Your task to perform on an android device: turn off smart reply in the gmail app Image 0: 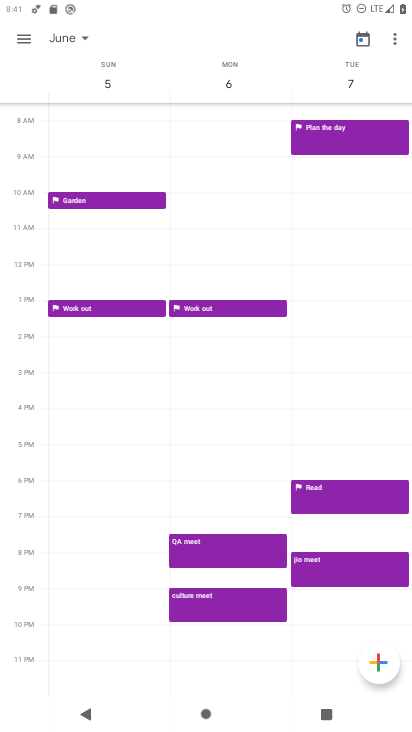
Step 0: press home button
Your task to perform on an android device: turn off smart reply in the gmail app Image 1: 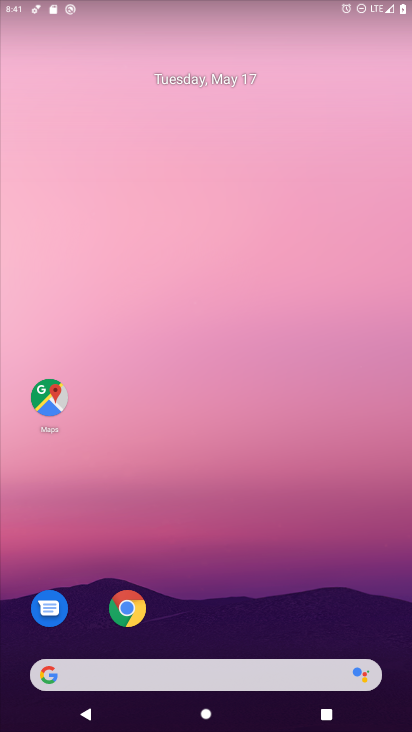
Step 1: drag from (216, 608) to (232, 109)
Your task to perform on an android device: turn off smart reply in the gmail app Image 2: 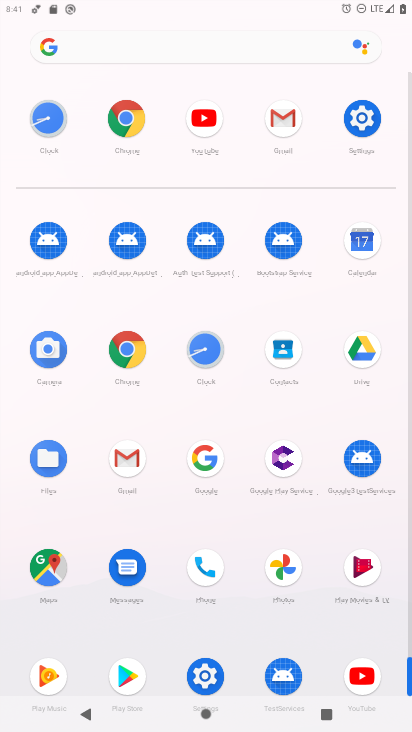
Step 2: click (122, 468)
Your task to perform on an android device: turn off smart reply in the gmail app Image 3: 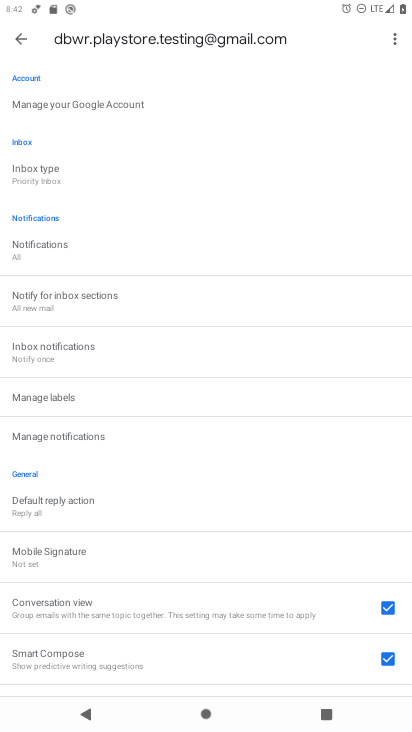
Step 3: task complete